Your task to perform on an android device: toggle pop-ups in chrome Image 0: 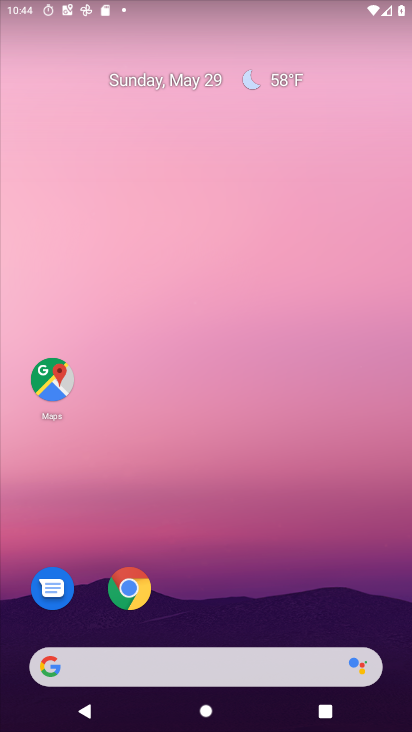
Step 0: drag from (216, 659) to (266, 330)
Your task to perform on an android device: toggle pop-ups in chrome Image 1: 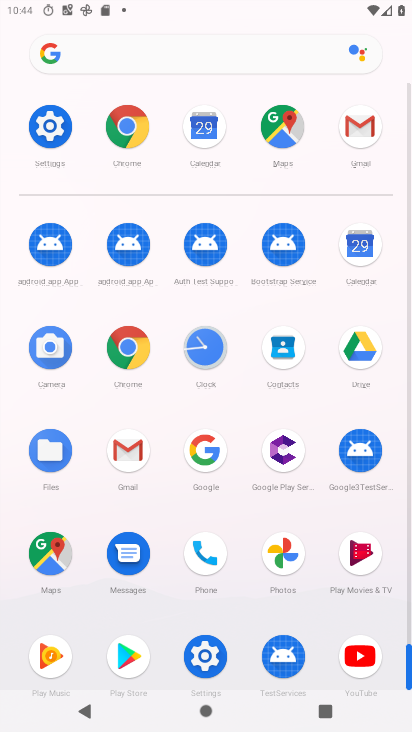
Step 1: click (131, 131)
Your task to perform on an android device: toggle pop-ups in chrome Image 2: 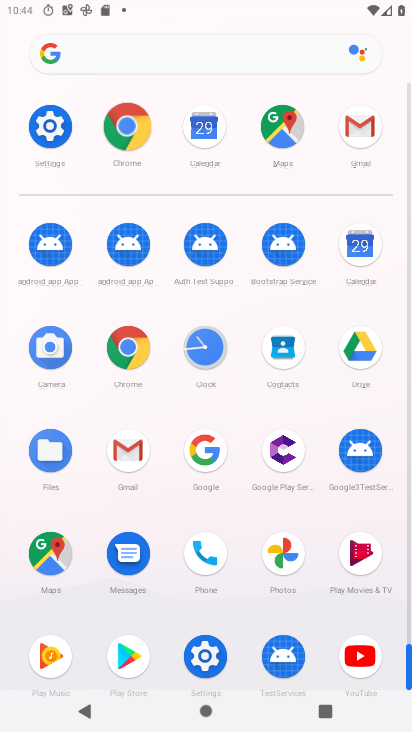
Step 2: click (132, 130)
Your task to perform on an android device: toggle pop-ups in chrome Image 3: 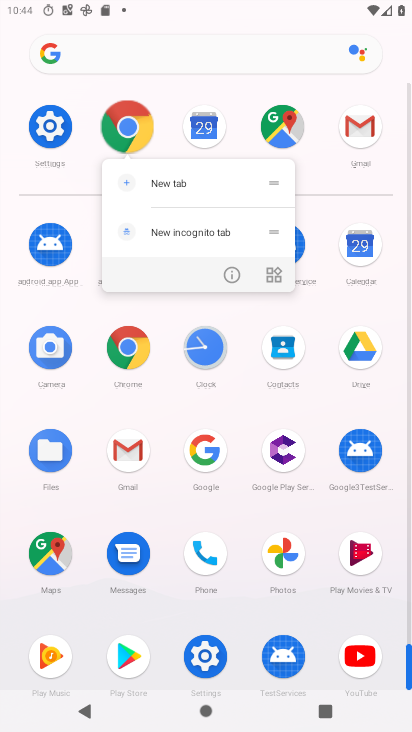
Step 3: click (132, 130)
Your task to perform on an android device: toggle pop-ups in chrome Image 4: 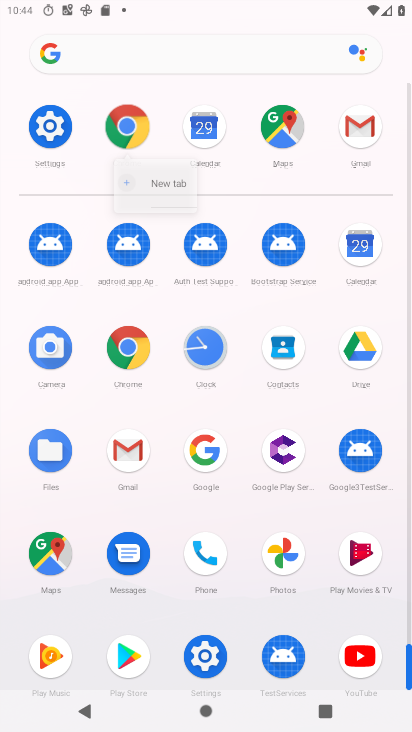
Step 4: click (136, 132)
Your task to perform on an android device: toggle pop-ups in chrome Image 5: 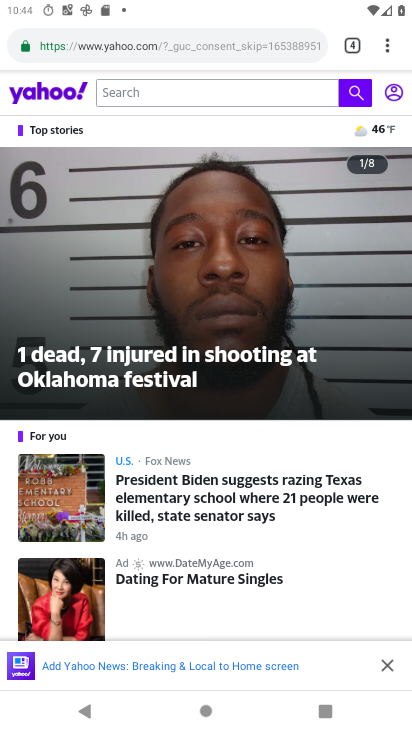
Step 5: click (389, 47)
Your task to perform on an android device: toggle pop-ups in chrome Image 6: 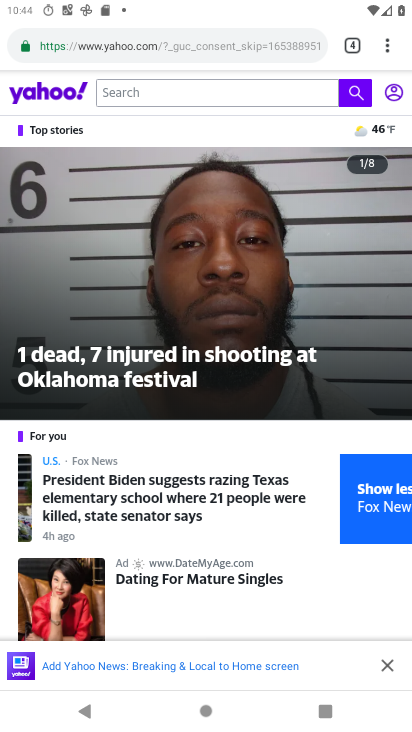
Step 6: click (389, 47)
Your task to perform on an android device: toggle pop-ups in chrome Image 7: 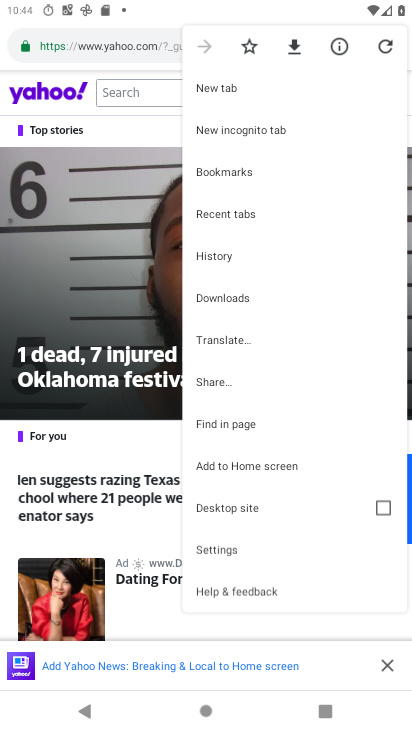
Step 7: click (390, 47)
Your task to perform on an android device: toggle pop-ups in chrome Image 8: 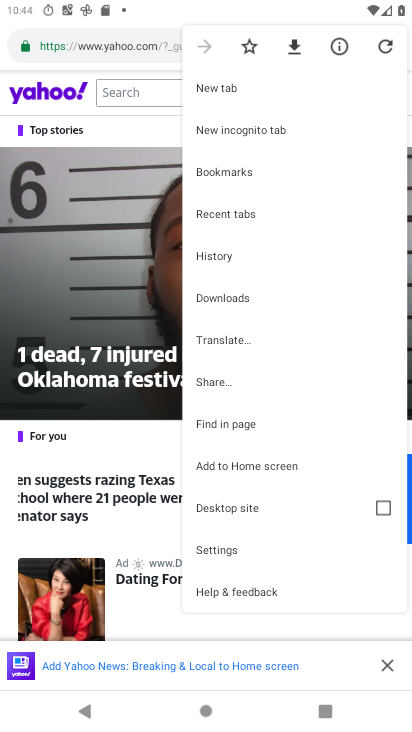
Step 8: click (391, 46)
Your task to perform on an android device: toggle pop-ups in chrome Image 9: 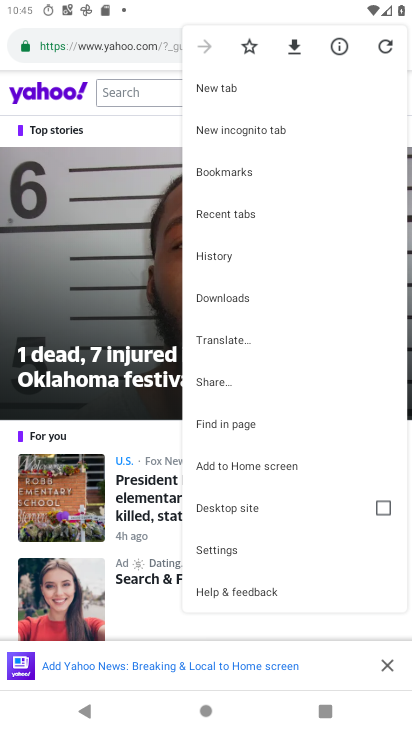
Step 9: click (210, 550)
Your task to perform on an android device: toggle pop-ups in chrome Image 10: 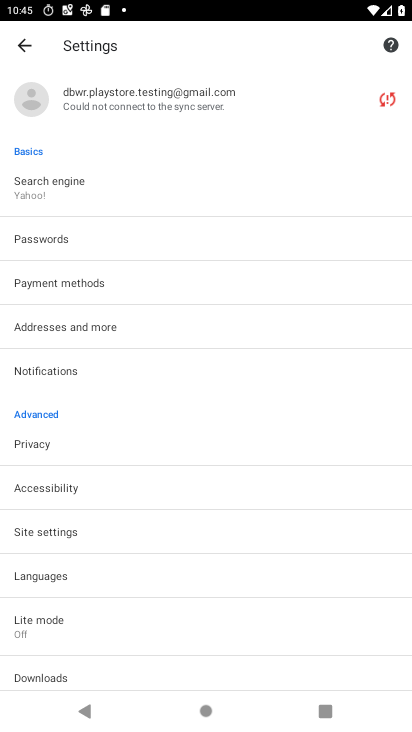
Step 10: drag from (60, 540) to (43, 148)
Your task to perform on an android device: toggle pop-ups in chrome Image 11: 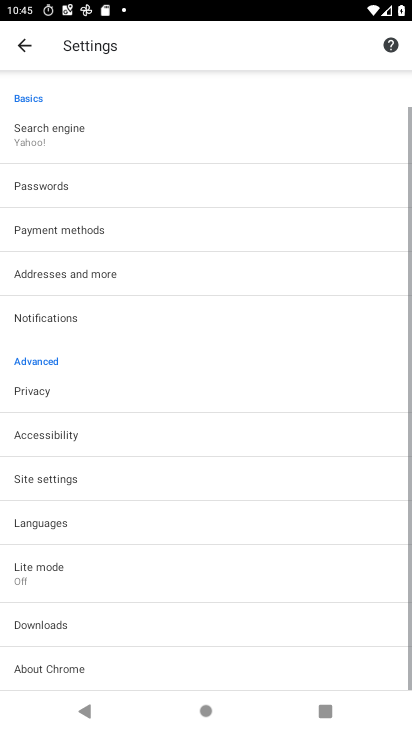
Step 11: drag from (137, 453) to (134, 217)
Your task to perform on an android device: toggle pop-ups in chrome Image 12: 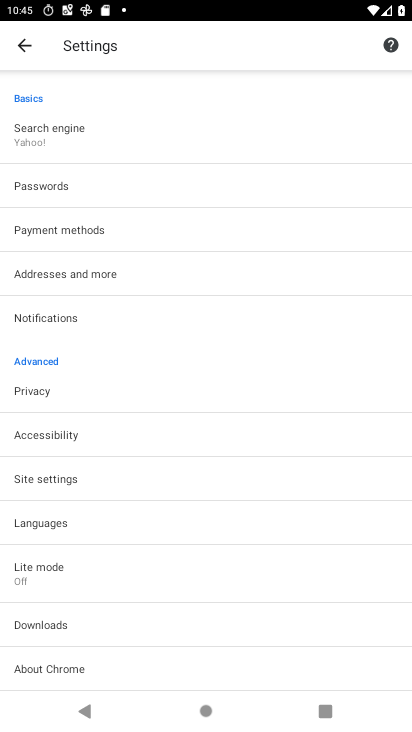
Step 12: click (46, 478)
Your task to perform on an android device: toggle pop-ups in chrome Image 13: 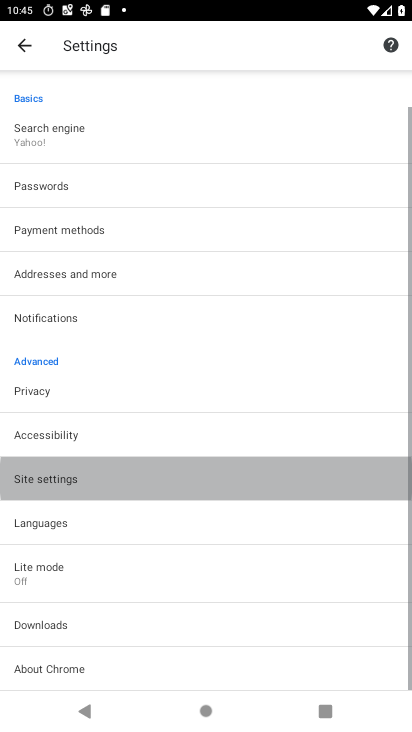
Step 13: click (46, 478)
Your task to perform on an android device: toggle pop-ups in chrome Image 14: 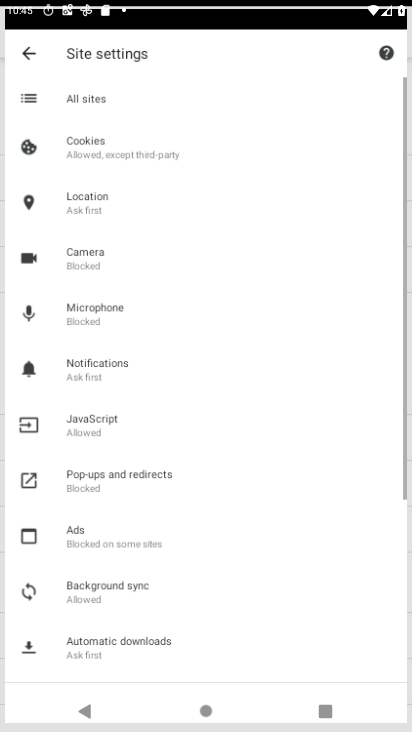
Step 14: click (47, 479)
Your task to perform on an android device: toggle pop-ups in chrome Image 15: 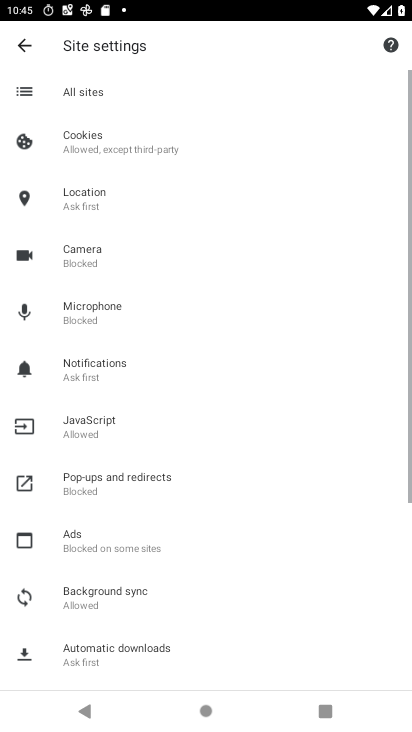
Step 15: click (47, 479)
Your task to perform on an android device: toggle pop-ups in chrome Image 16: 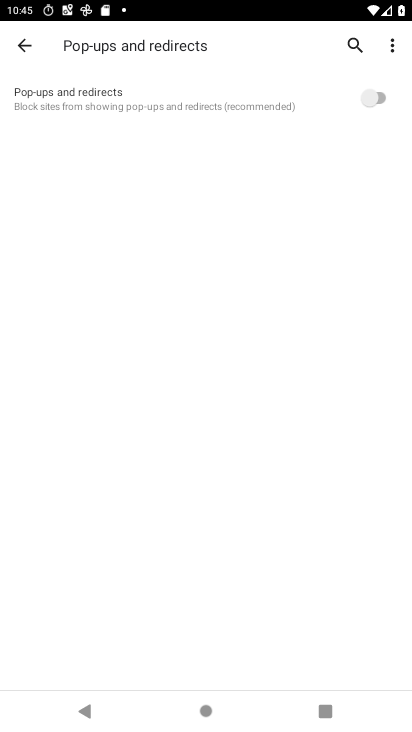
Step 16: click (394, 93)
Your task to perform on an android device: toggle pop-ups in chrome Image 17: 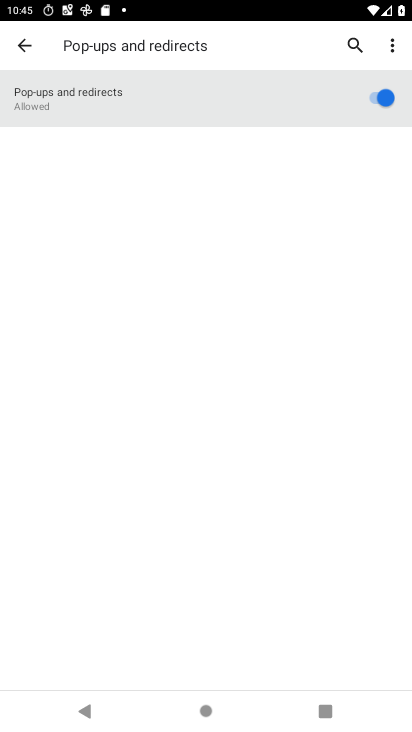
Step 17: click (370, 107)
Your task to perform on an android device: toggle pop-ups in chrome Image 18: 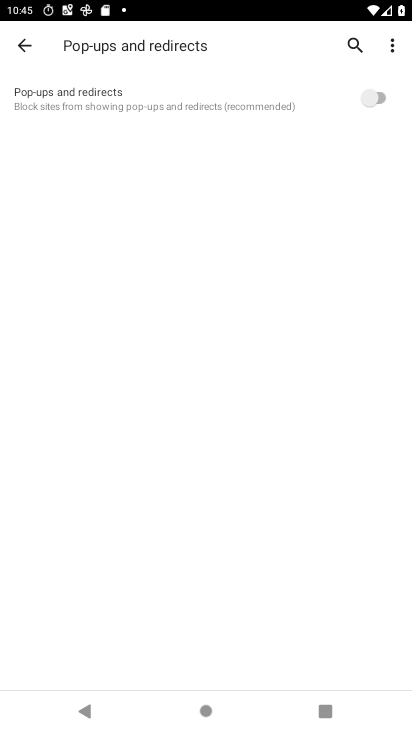
Step 18: click (374, 98)
Your task to perform on an android device: toggle pop-ups in chrome Image 19: 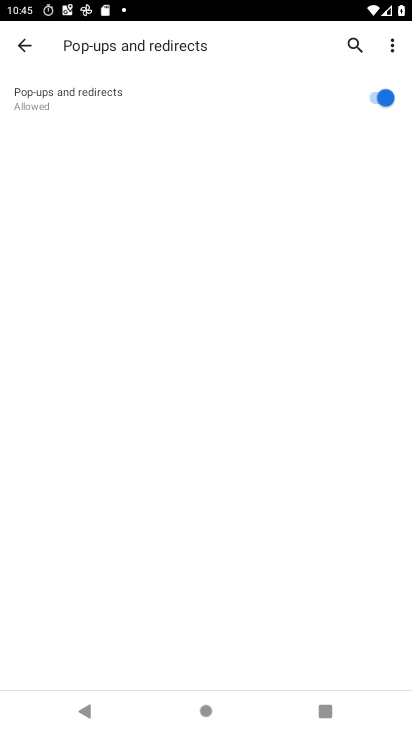
Step 19: task complete